Your task to perform on an android device: turn on improve location accuracy Image 0: 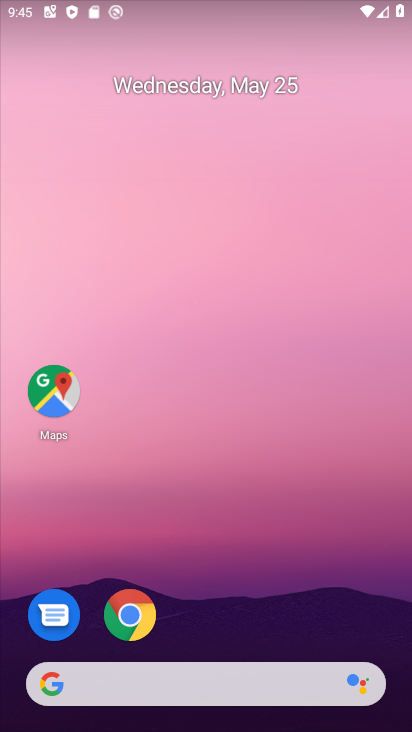
Step 0: drag from (248, 608) to (256, 61)
Your task to perform on an android device: turn on improve location accuracy Image 1: 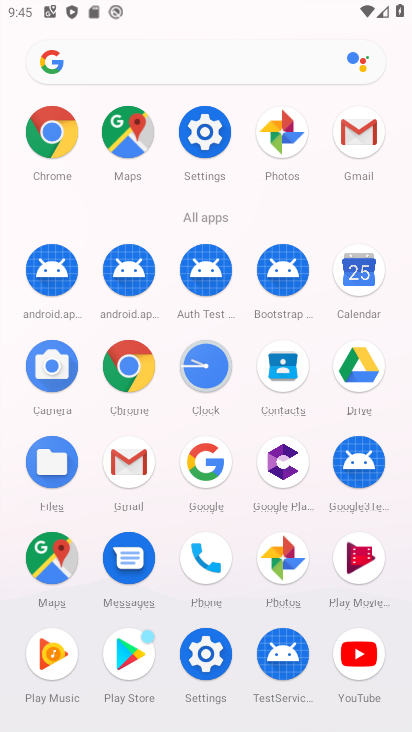
Step 1: click (194, 129)
Your task to perform on an android device: turn on improve location accuracy Image 2: 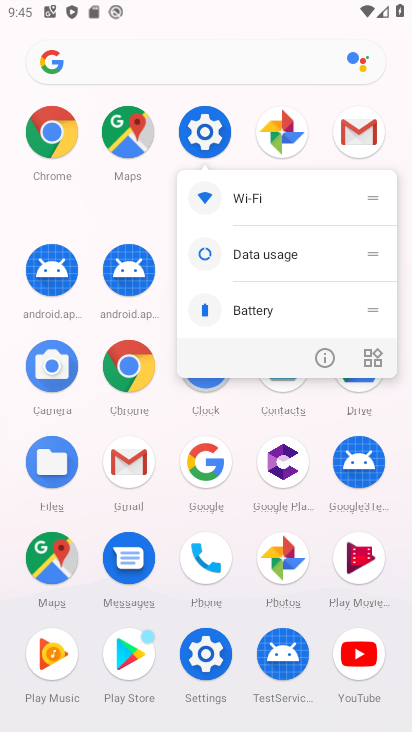
Step 2: click (202, 120)
Your task to perform on an android device: turn on improve location accuracy Image 3: 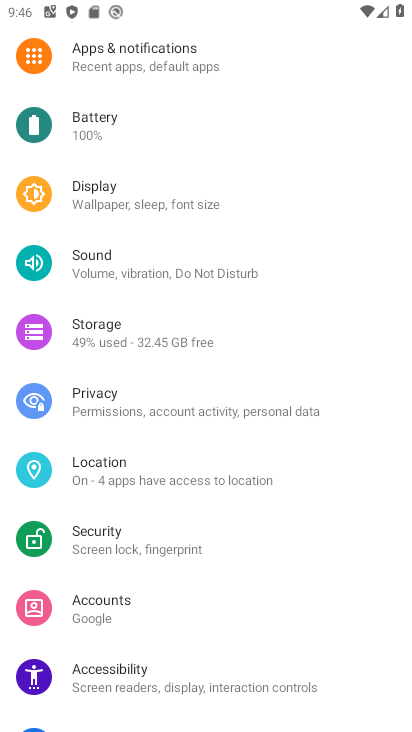
Step 3: click (174, 461)
Your task to perform on an android device: turn on improve location accuracy Image 4: 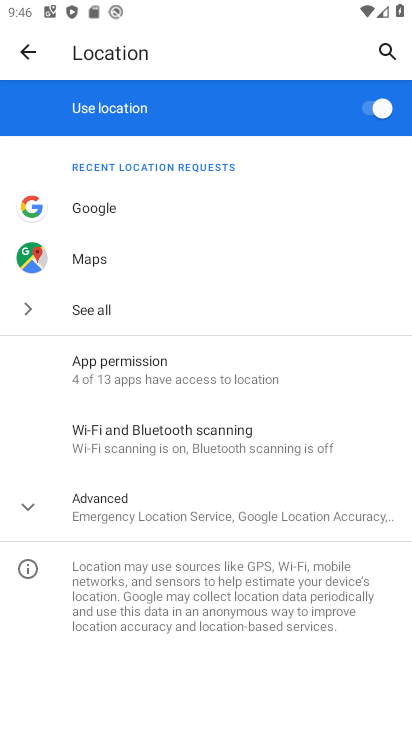
Step 4: click (25, 499)
Your task to perform on an android device: turn on improve location accuracy Image 5: 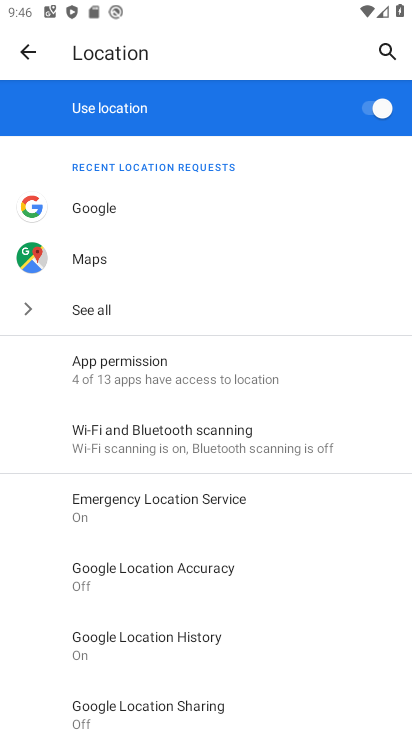
Step 5: click (126, 578)
Your task to perform on an android device: turn on improve location accuracy Image 6: 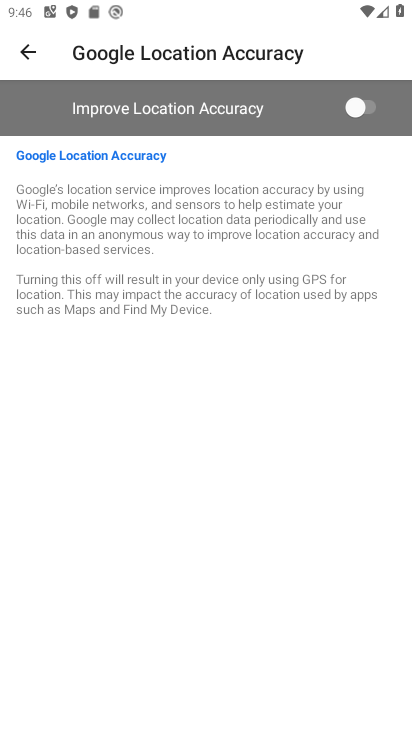
Step 6: click (365, 103)
Your task to perform on an android device: turn on improve location accuracy Image 7: 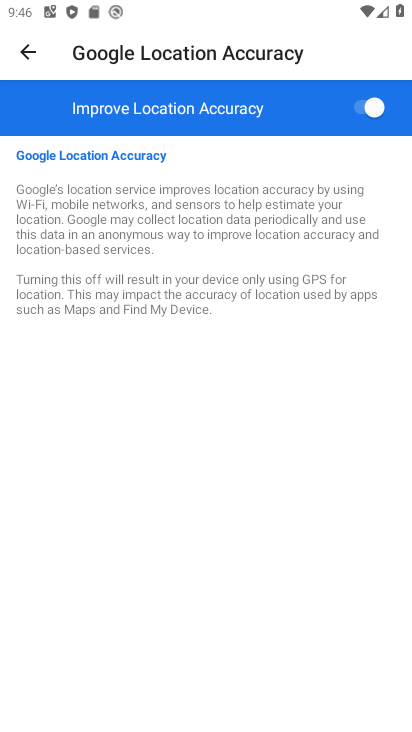
Step 7: task complete